Your task to perform on an android device: turn off location history Image 0: 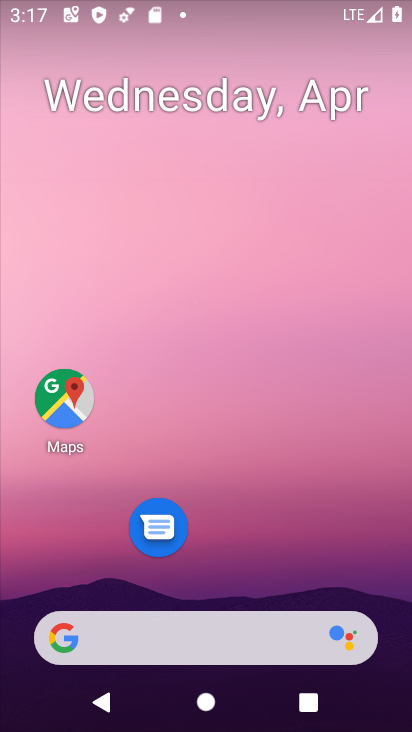
Step 0: drag from (217, 336) to (255, 9)
Your task to perform on an android device: turn off location history Image 1: 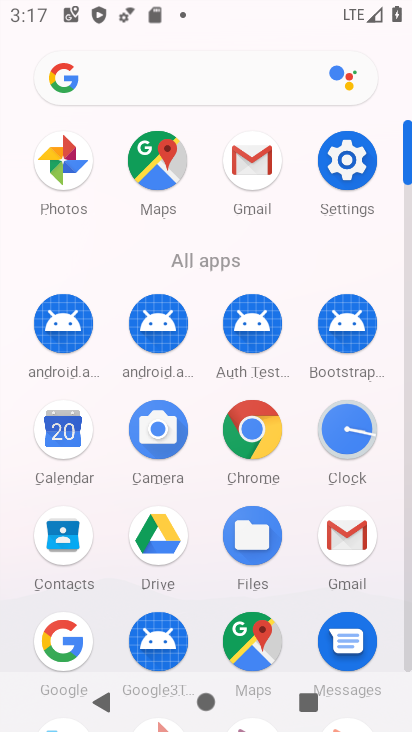
Step 1: click (362, 203)
Your task to perform on an android device: turn off location history Image 2: 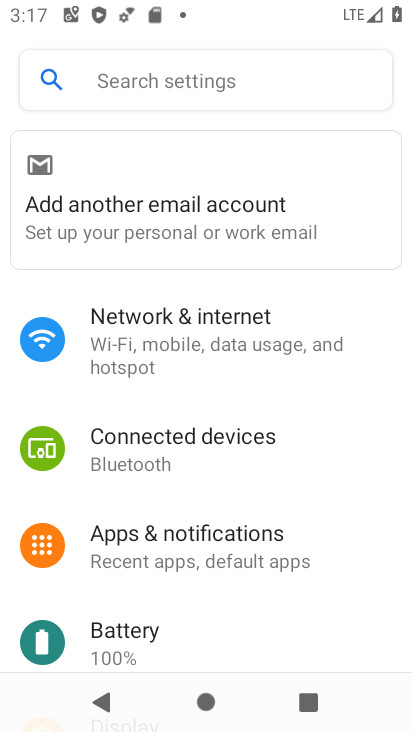
Step 2: drag from (191, 533) to (226, 209)
Your task to perform on an android device: turn off location history Image 3: 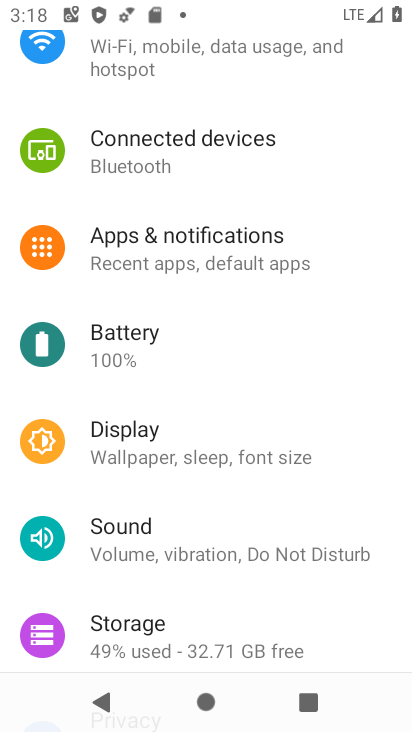
Step 3: drag from (203, 537) to (244, 213)
Your task to perform on an android device: turn off location history Image 4: 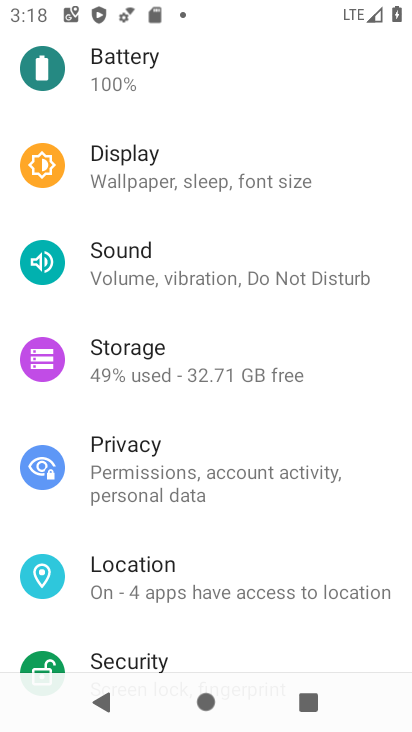
Step 4: click (198, 592)
Your task to perform on an android device: turn off location history Image 5: 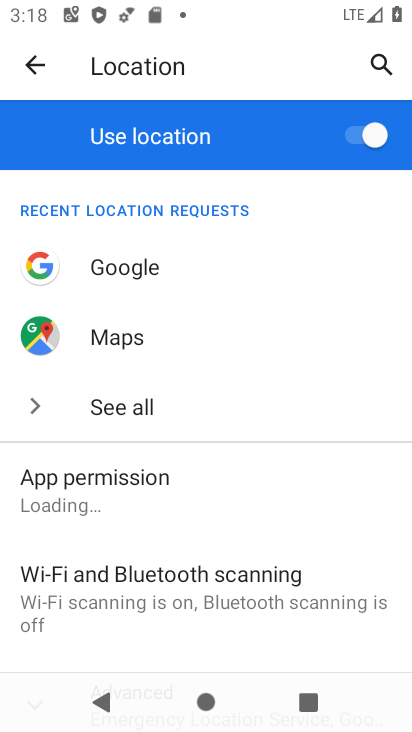
Step 5: drag from (130, 584) to (175, 194)
Your task to perform on an android device: turn off location history Image 6: 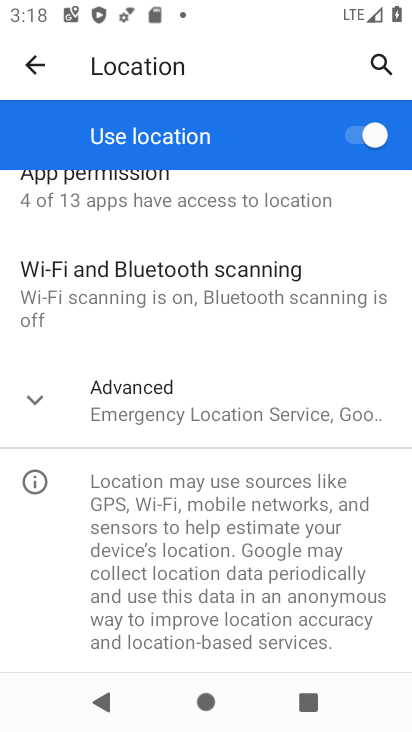
Step 6: click (164, 400)
Your task to perform on an android device: turn off location history Image 7: 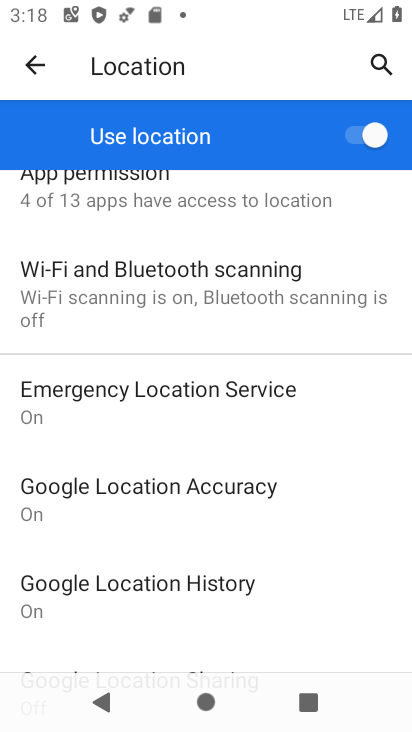
Step 7: click (170, 593)
Your task to perform on an android device: turn off location history Image 8: 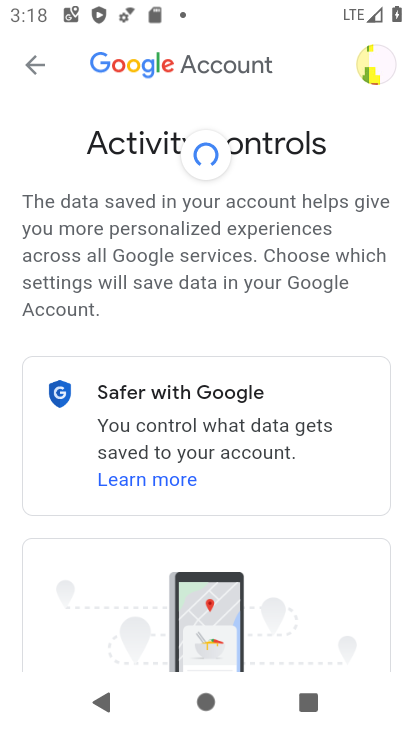
Step 8: drag from (241, 486) to (260, 161)
Your task to perform on an android device: turn off location history Image 9: 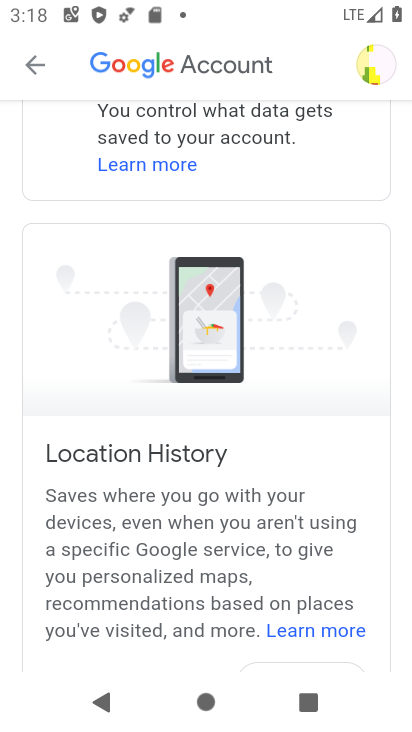
Step 9: drag from (277, 405) to (275, 158)
Your task to perform on an android device: turn off location history Image 10: 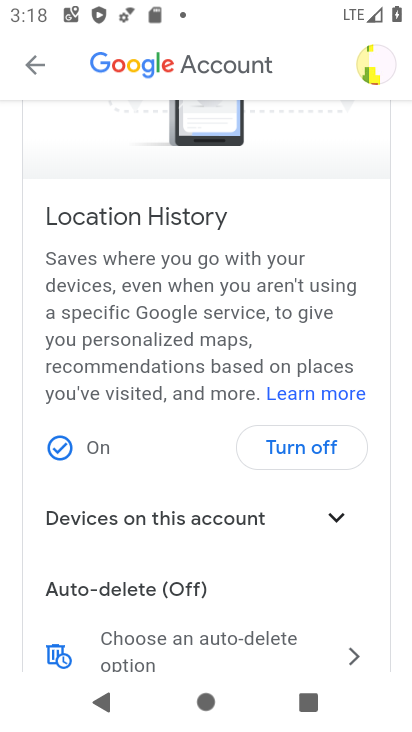
Step 10: click (304, 445)
Your task to perform on an android device: turn off location history Image 11: 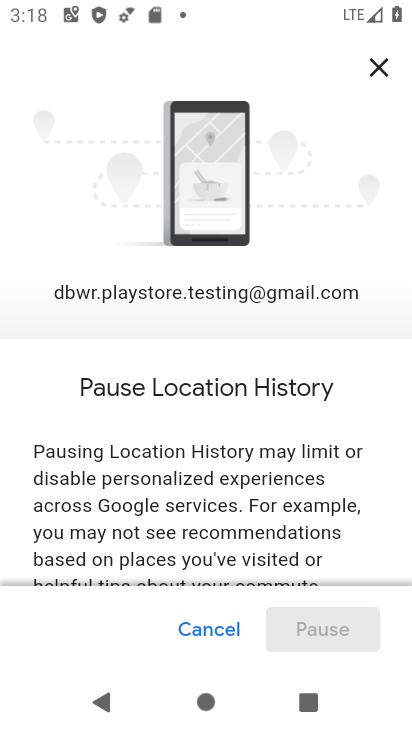
Step 11: task complete